Your task to perform on an android device: Go to Reddit.com Image 0: 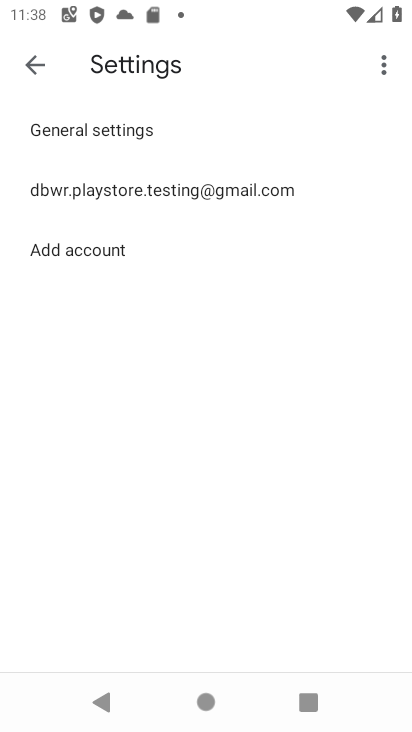
Step 0: press home button
Your task to perform on an android device: Go to Reddit.com Image 1: 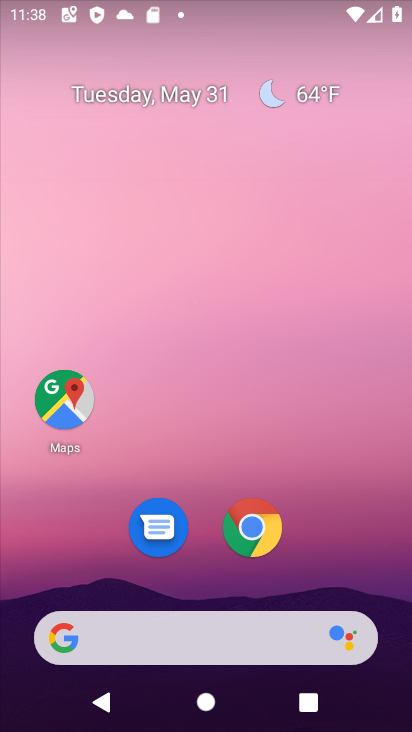
Step 1: click (89, 638)
Your task to perform on an android device: Go to Reddit.com Image 2: 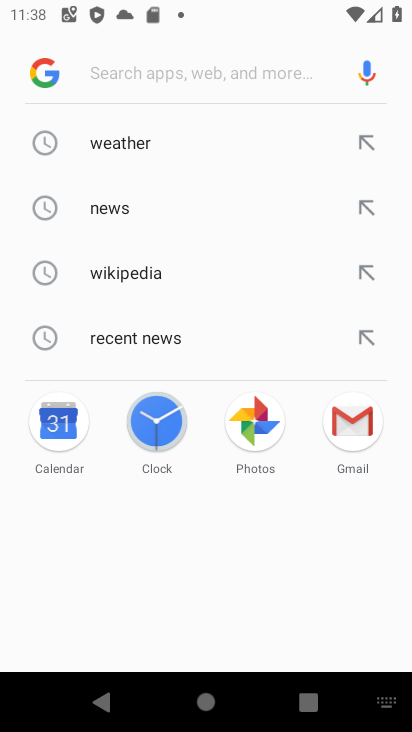
Step 2: type "reddit.com"
Your task to perform on an android device: Go to Reddit.com Image 3: 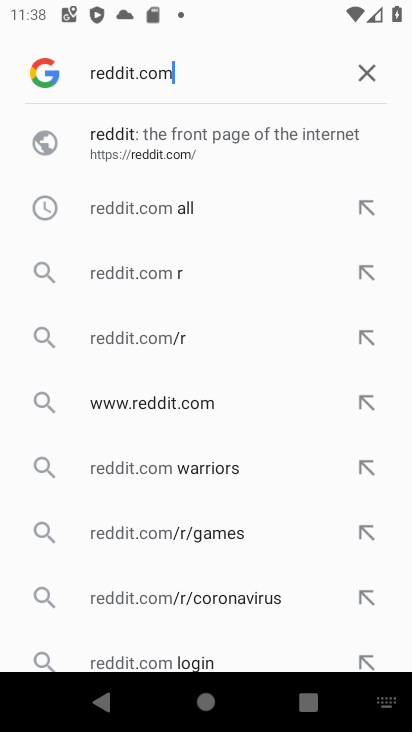
Step 3: click (199, 151)
Your task to perform on an android device: Go to Reddit.com Image 4: 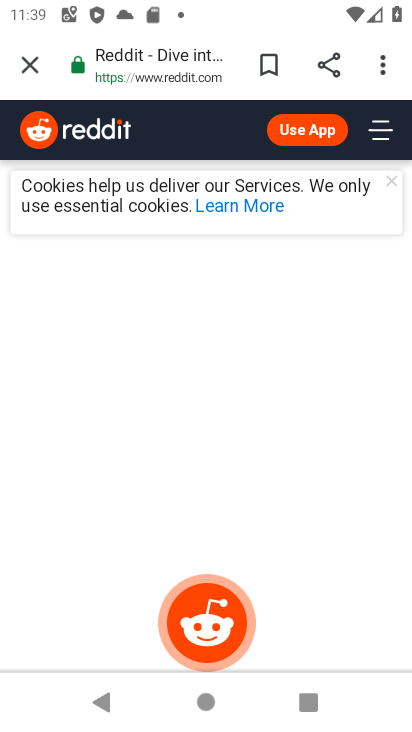
Step 4: task complete